Your task to perform on an android device: Go to eBay Image 0: 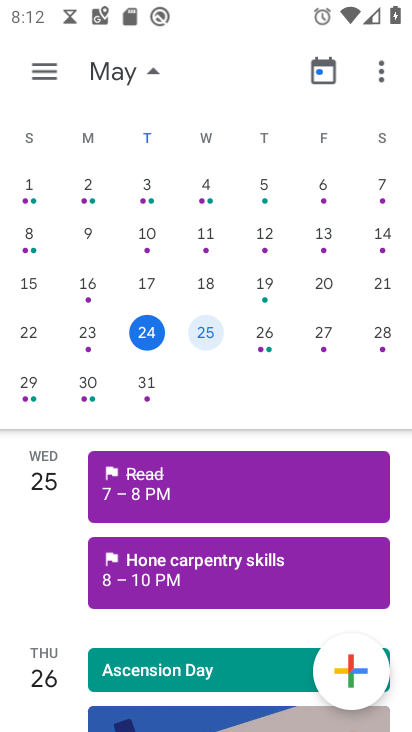
Step 0: press home button
Your task to perform on an android device: Go to eBay Image 1: 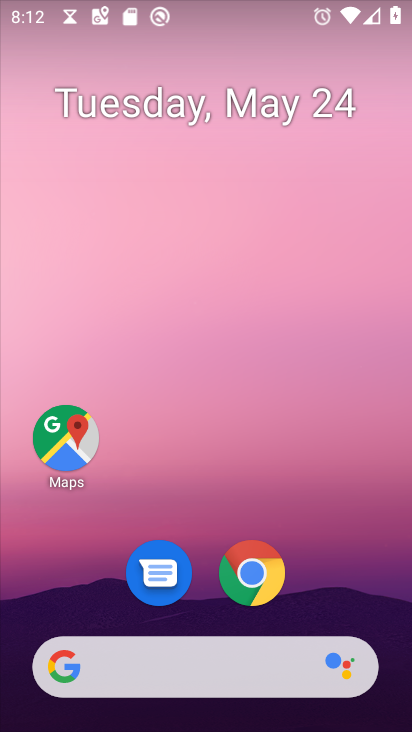
Step 1: click (251, 579)
Your task to perform on an android device: Go to eBay Image 2: 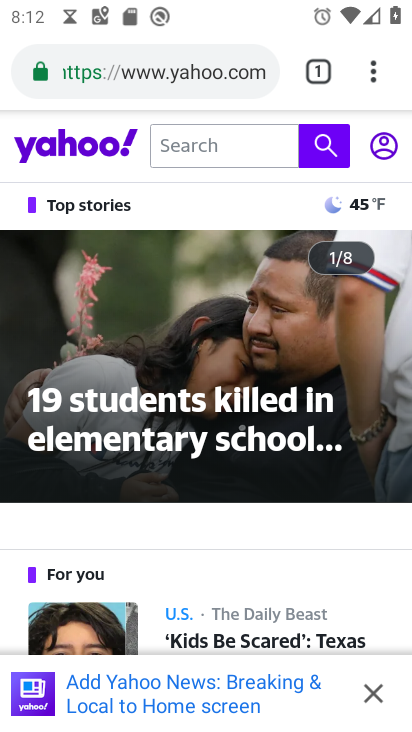
Step 2: click (204, 78)
Your task to perform on an android device: Go to eBay Image 3: 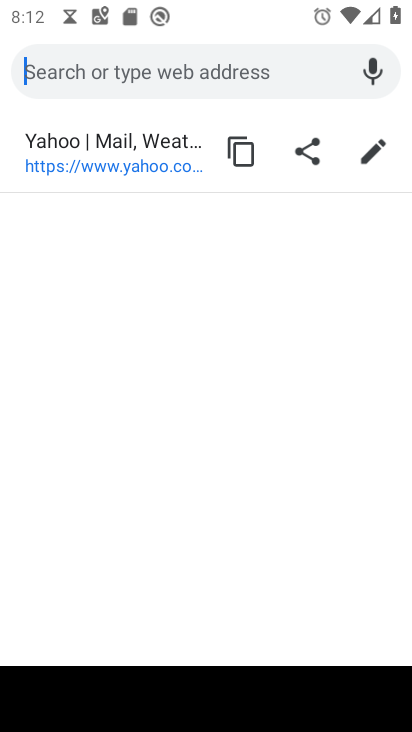
Step 3: type "ebay"
Your task to perform on an android device: Go to eBay Image 4: 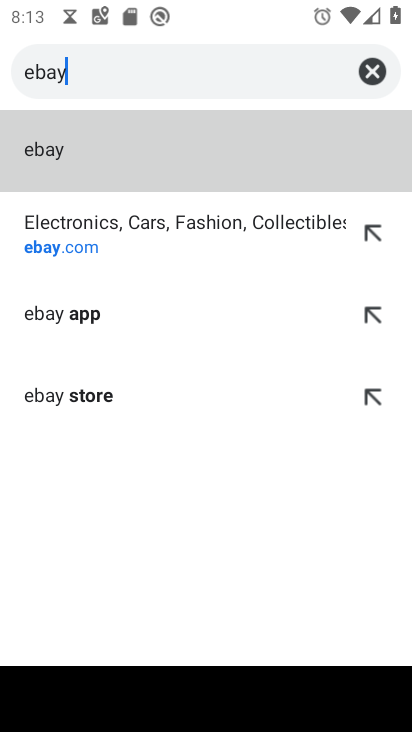
Step 4: click (66, 255)
Your task to perform on an android device: Go to eBay Image 5: 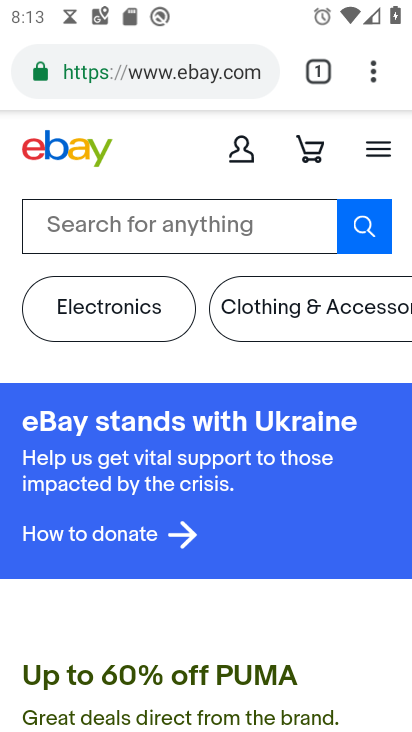
Step 5: task complete